Your task to perform on an android device: turn smart compose on in the gmail app Image 0: 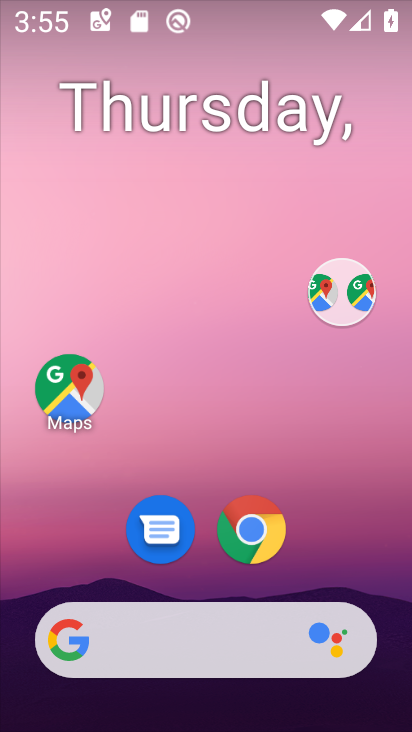
Step 0: drag from (226, 599) to (242, 154)
Your task to perform on an android device: turn smart compose on in the gmail app Image 1: 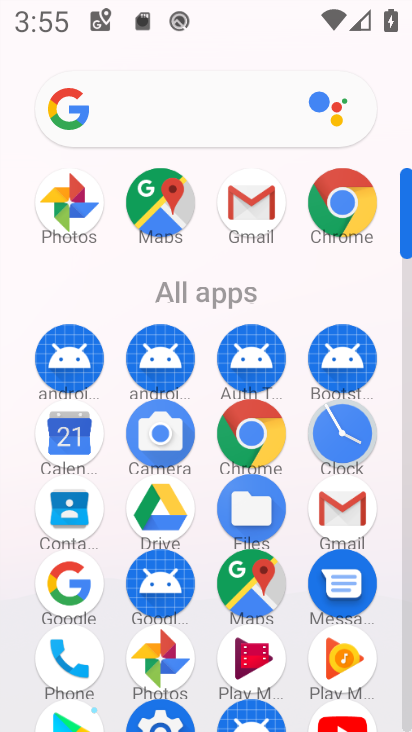
Step 1: click (242, 212)
Your task to perform on an android device: turn smart compose on in the gmail app Image 2: 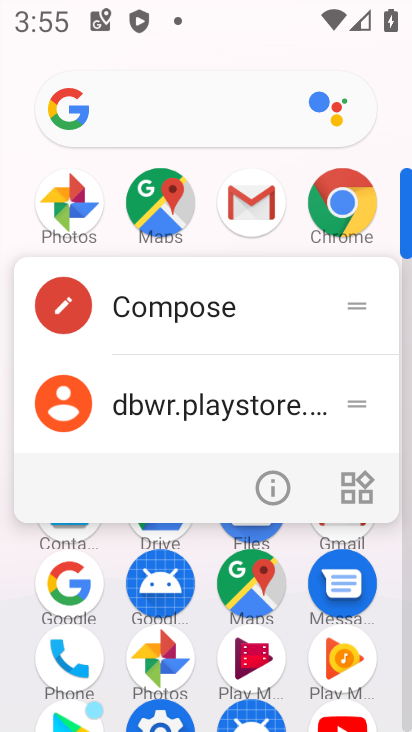
Step 2: click (203, 295)
Your task to perform on an android device: turn smart compose on in the gmail app Image 3: 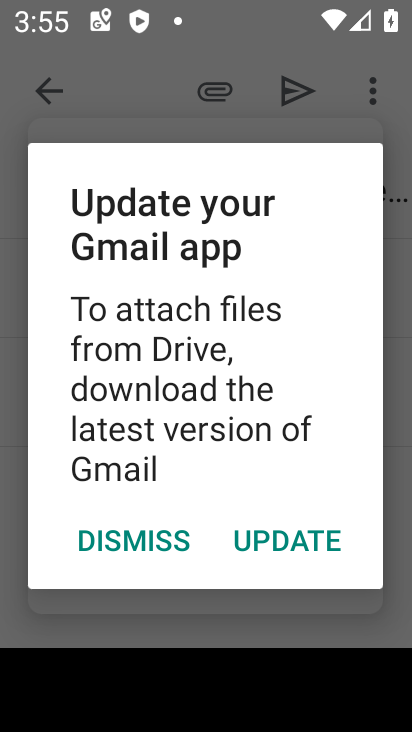
Step 3: click (288, 564)
Your task to perform on an android device: turn smart compose on in the gmail app Image 4: 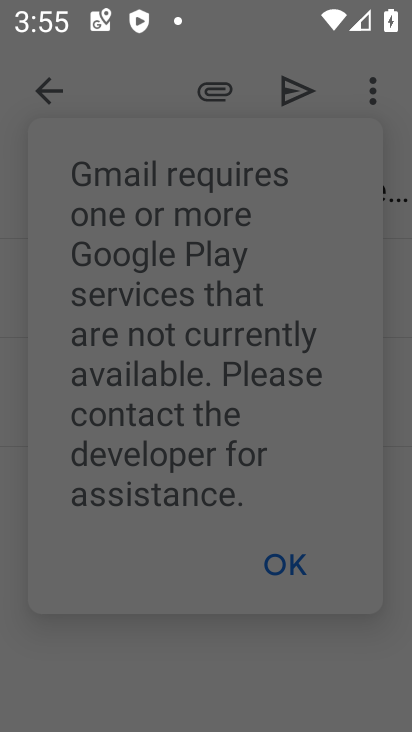
Step 4: task complete